Your task to perform on an android device: Search for vegetarian restaurants on Maps Image 0: 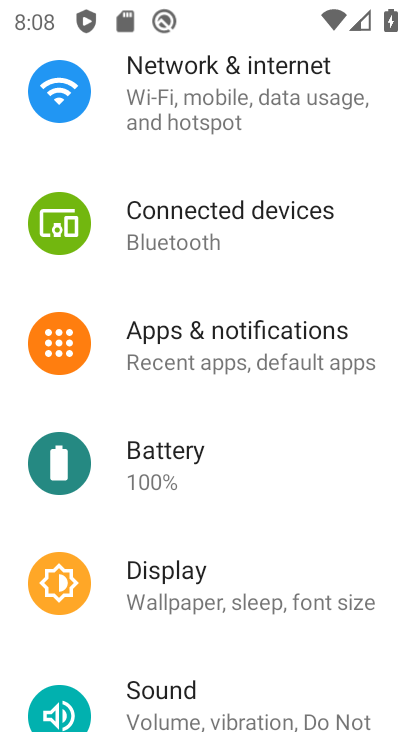
Step 0: press home button
Your task to perform on an android device: Search for vegetarian restaurants on Maps Image 1: 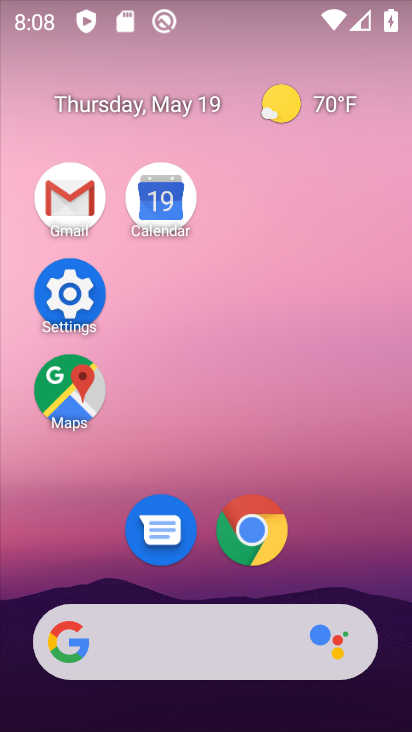
Step 1: click (52, 384)
Your task to perform on an android device: Search for vegetarian restaurants on Maps Image 2: 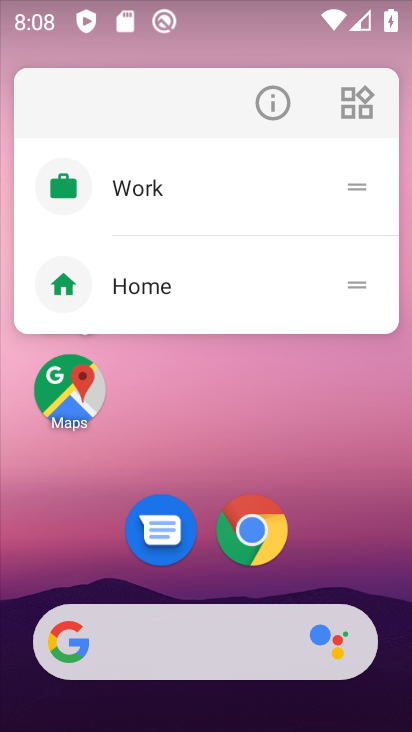
Step 2: click (48, 381)
Your task to perform on an android device: Search for vegetarian restaurants on Maps Image 3: 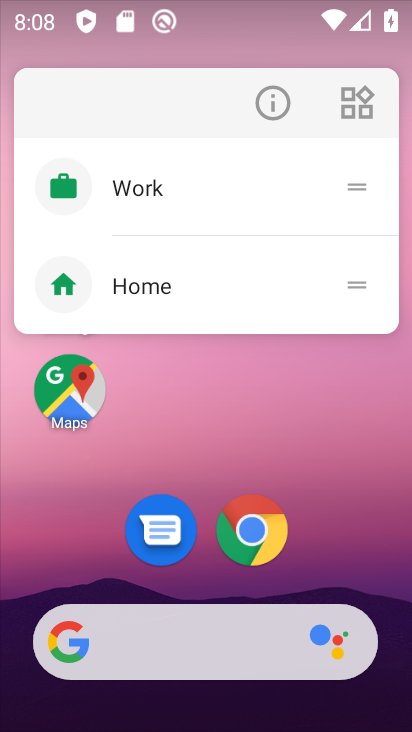
Step 3: click (78, 391)
Your task to perform on an android device: Search for vegetarian restaurants on Maps Image 4: 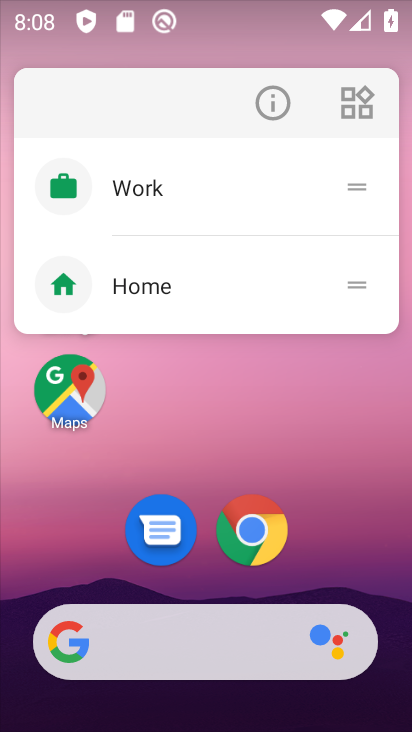
Step 4: click (94, 402)
Your task to perform on an android device: Search for vegetarian restaurants on Maps Image 5: 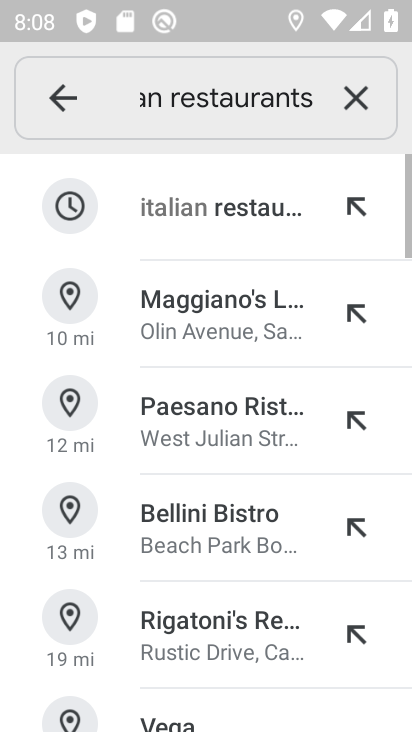
Step 5: click (360, 98)
Your task to perform on an android device: Search for vegetarian restaurants on Maps Image 6: 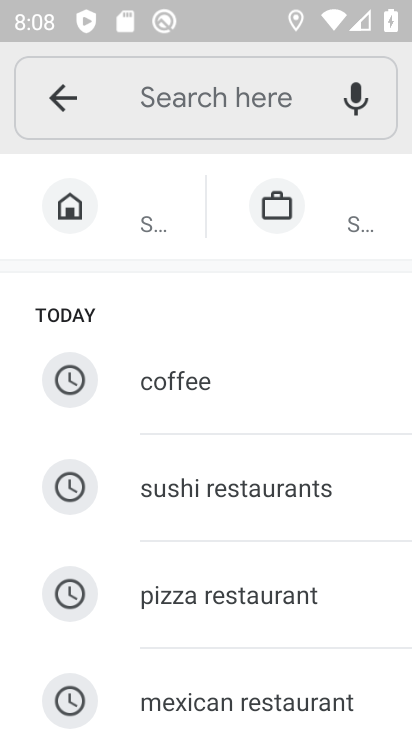
Step 6: drag from (254, 623) to (252, 226)
Your task to perform on an android device: Search for vegetarian restaurants on Maps Image 7: 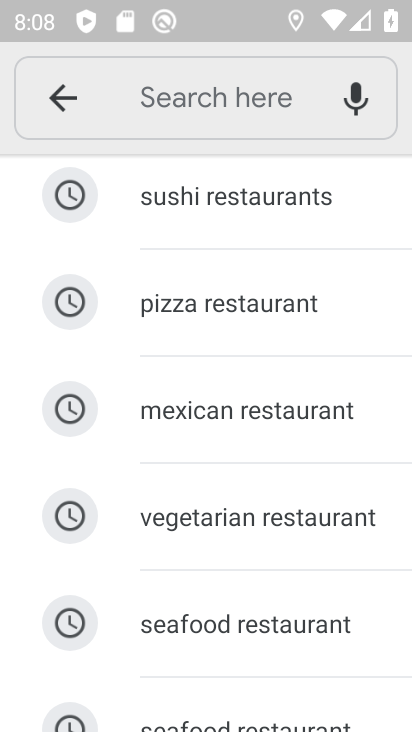
Step 7: click (237, 544)
Your task to perform on an android device: Search for vegetarian restaurants on Maps Image 8: 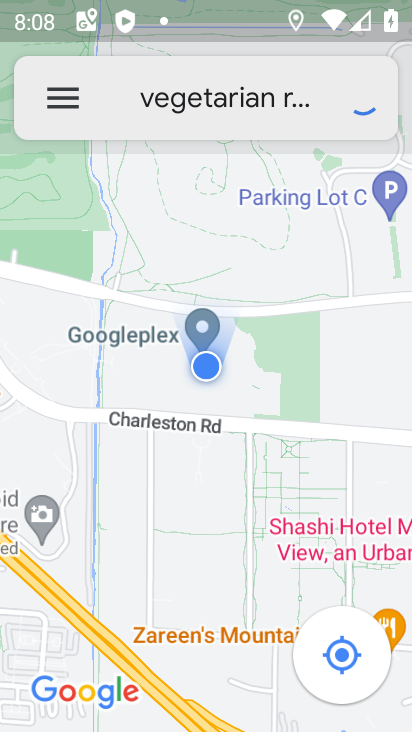
Step 8: task complete